Your task to perform on an android device: set the stopwatch Image 0: 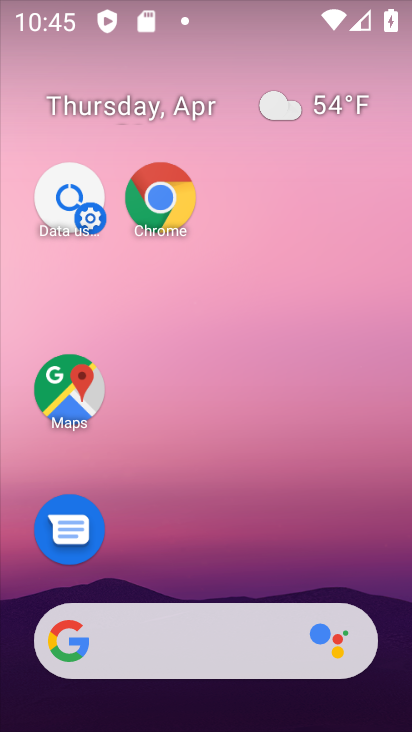
Step 0: drag from (205, 565) to (189, 56)
Your task to perform on an android device: set the stopwatch Image 1: 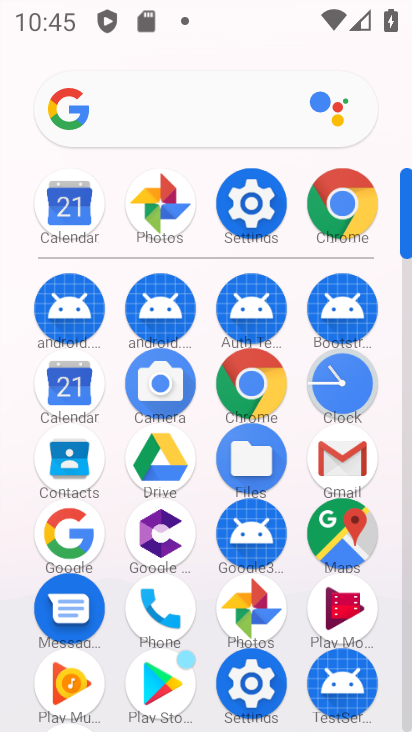
Step 1: click (341, 374)
Your task to perform on an android device: set the stopwatch Image 2: 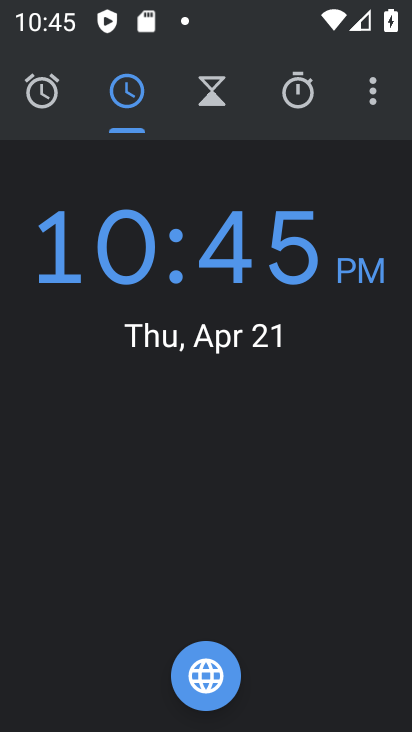
Step 2: click (300, 100)
Your task to perform on an android device: set the stopwatch Image 3: 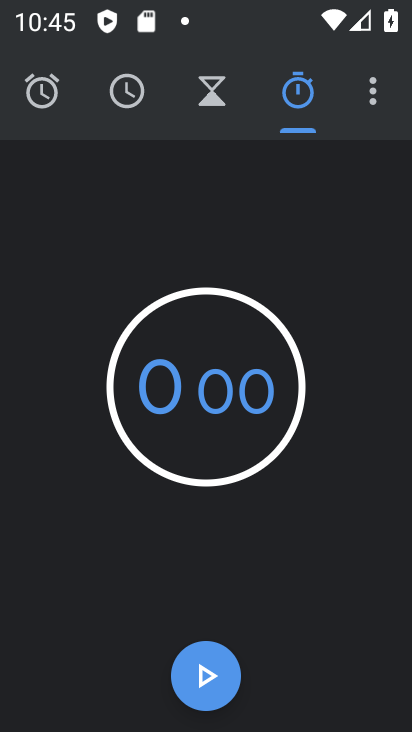
Step 3: click (213, 681)
Your task to perform on an android device: set the stopwatch Image 4: 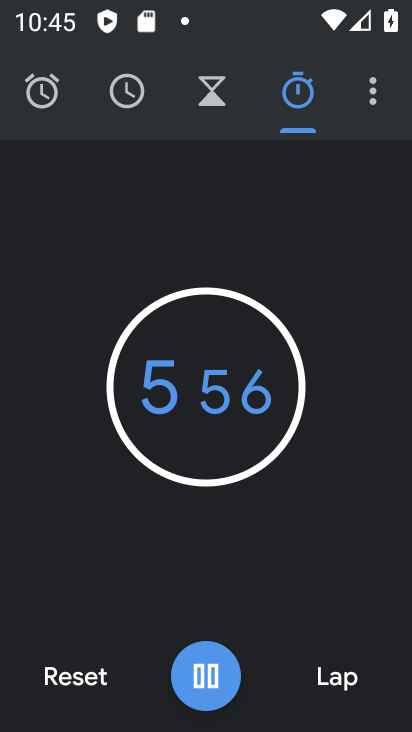
Step 4: click (214, 665)
Your task to perform on an android device: set the stopwatch Image 5: 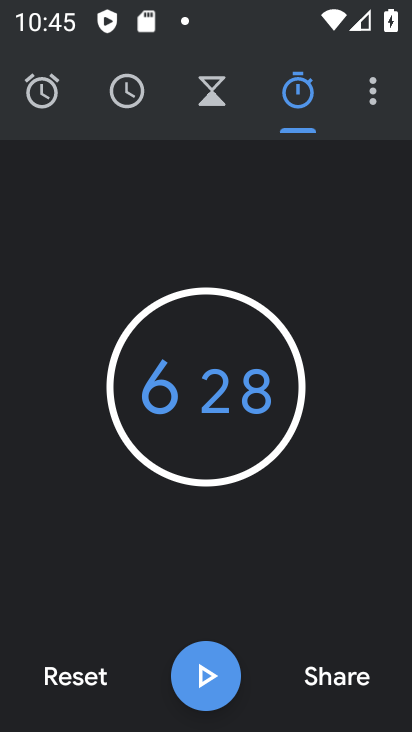
Step 5: task complete